Your task to perform on an android device: choose inbox layout in the gmail app Image 0: 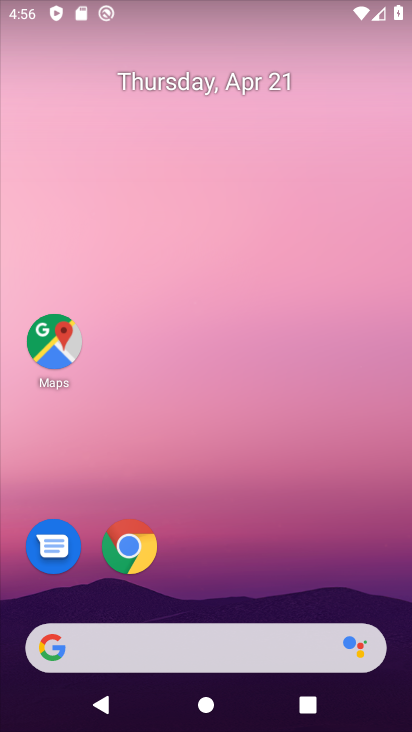
Step 0: drag from (347, 400) to (304, 75)
Your task to perform on an android device: choose inbox layout in the gmail app Image 1: 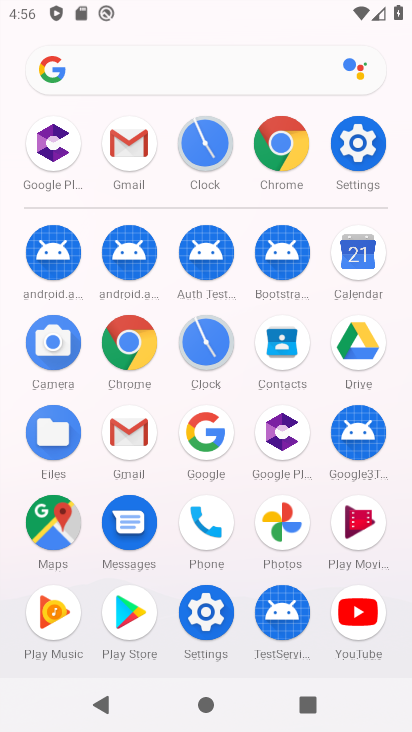
Step 1: click (133, 434)
Your task to perform on an android device: choose inbox layout in the gmail app Image 2: 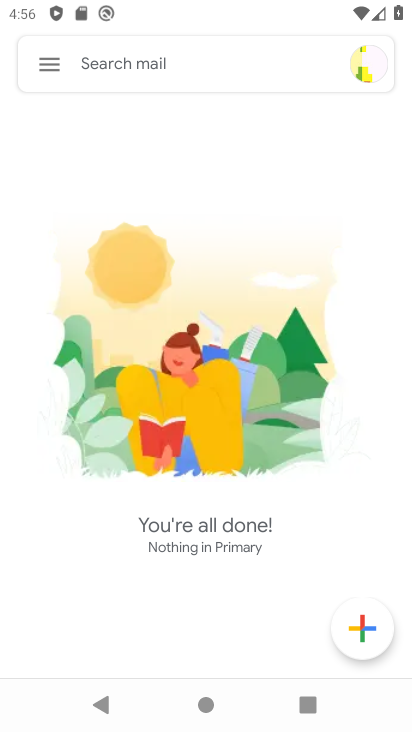
Step 2: click (50, 60)
Your task to perform on an android device: choose inbox layout in the gmail app Image 3: 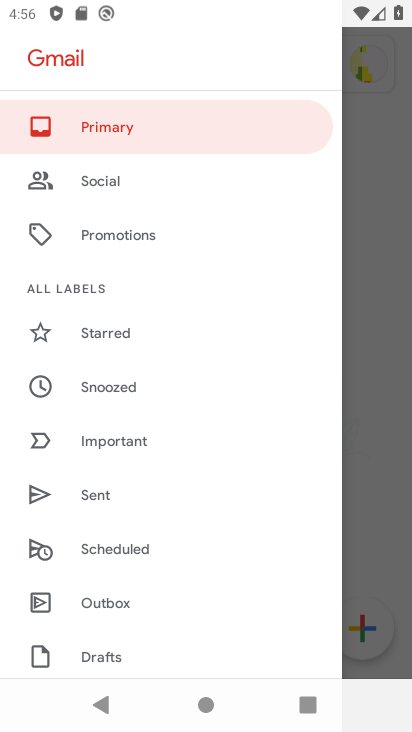
Step 3: drag from (183, 601) to (184, 155)
Your task to perform on an android device: choose inbox layout in the gmail app Image 4: 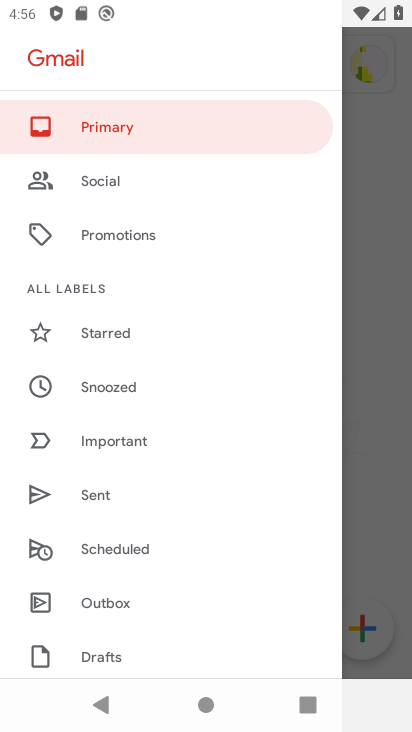
Step 4: drag from (165, 565) to (165, 184)
Your task to perform on an android device: choose inbox layout in the gmail app Image 5: 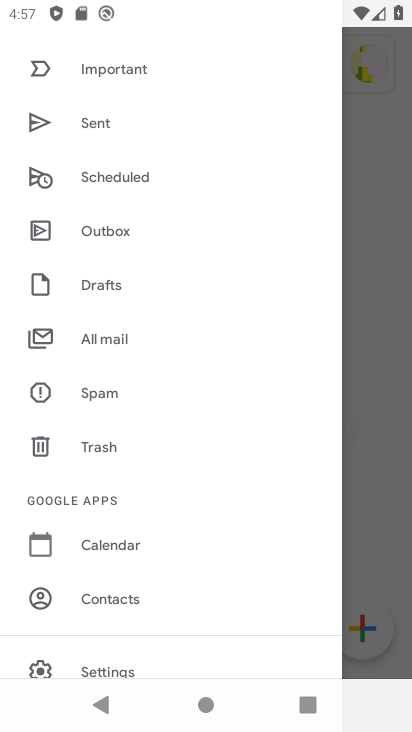
Step 5: click (135, 661)
Your task to perform on an android device: choose inbox layout in the gmail app Image 6: 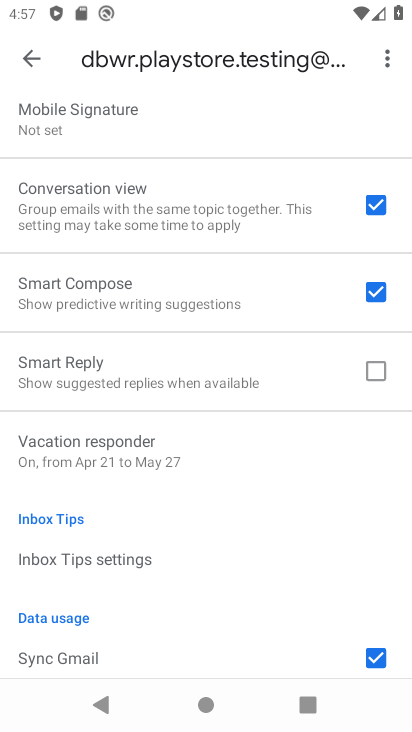
Step 6: drag from (220, 161) to (234, 569)
Your task to perform on an android device: choose inbox layout in the gmail app Image 7: 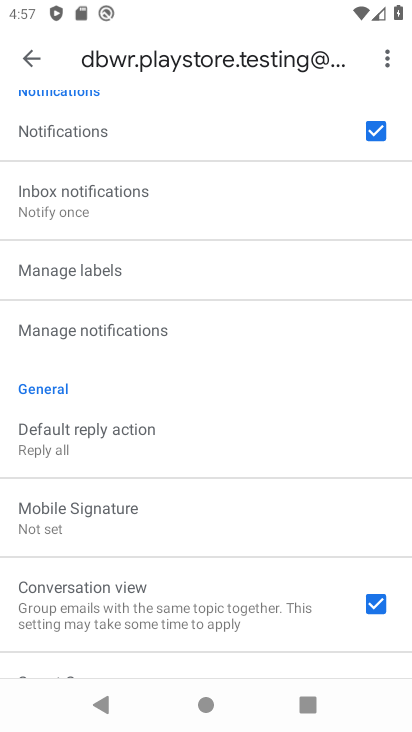
Step 7: drag from (163, 168) to (163, 515)
Your task to perform on an android device: choose inbox layout in the gmail app Image 8: 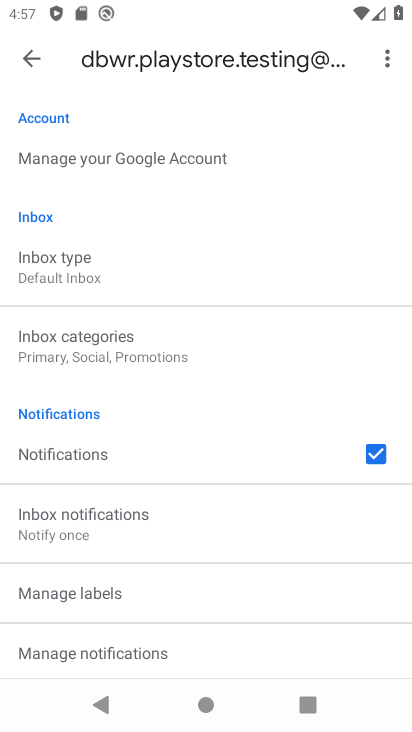
Step 8: click (68, 272)
Your task to perform on an android device: choose inbox layout in the gmail app Image 9: 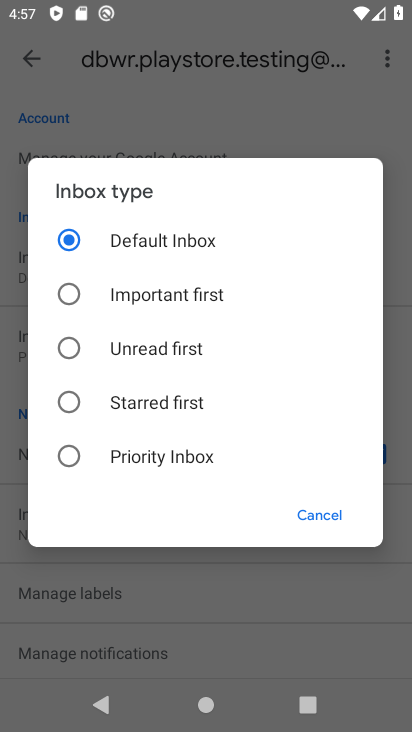
Step 9: click (69, 447)
Your task to perform on an android device: choose inbox layout in the gmail app Image 10: 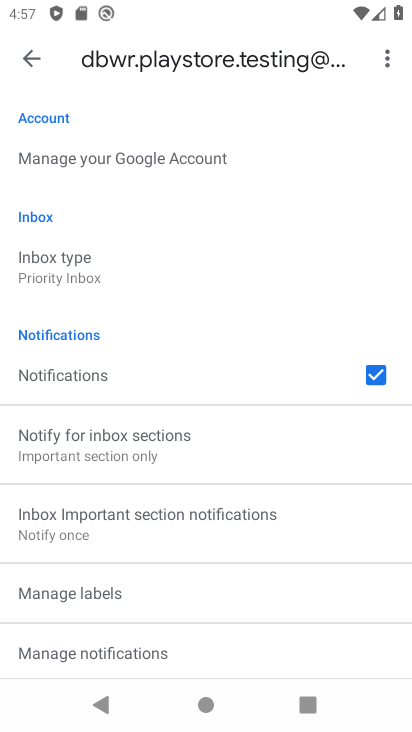
Step 10: task complete